Your task to perform on an android device: Go to Android settings Image 0: 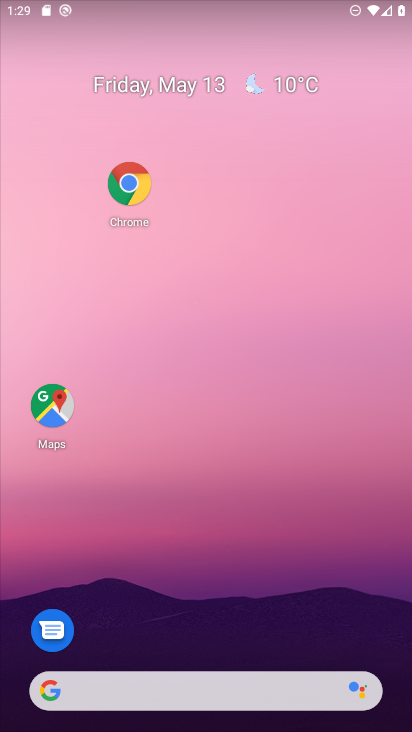
Step 0: drag from (210, 689) to (247, 270)
Your task to perform on an android device: Go to Android settings Image 1: 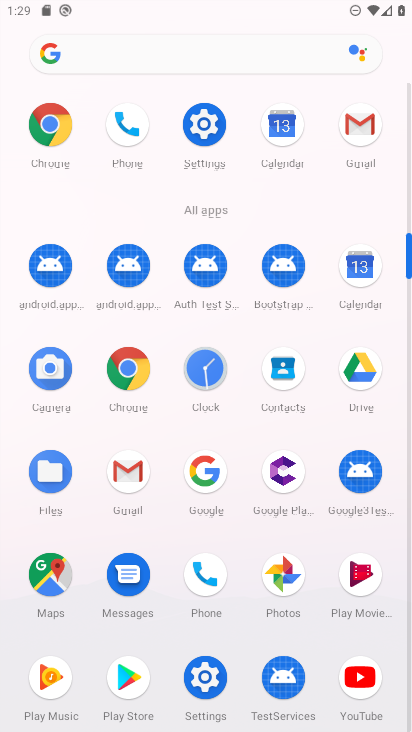
Step 1: click (215, 680)
Your task to perform on an android device: Go to Android settings Image 2: 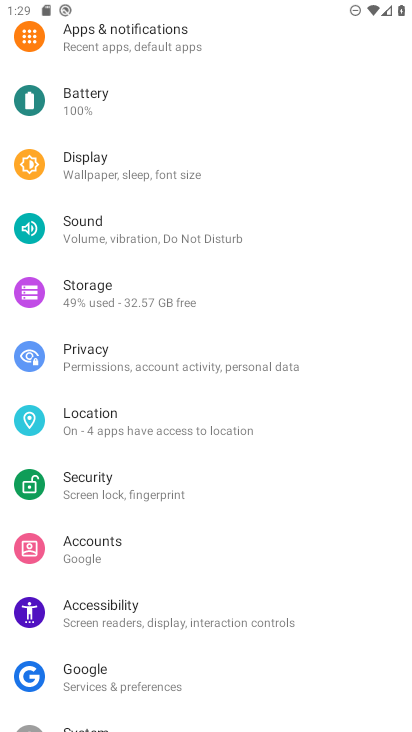
Step 2: drag from (138, 659) to (175, 176)
Your task to perform on an android device: Go to Android settings Image 3: 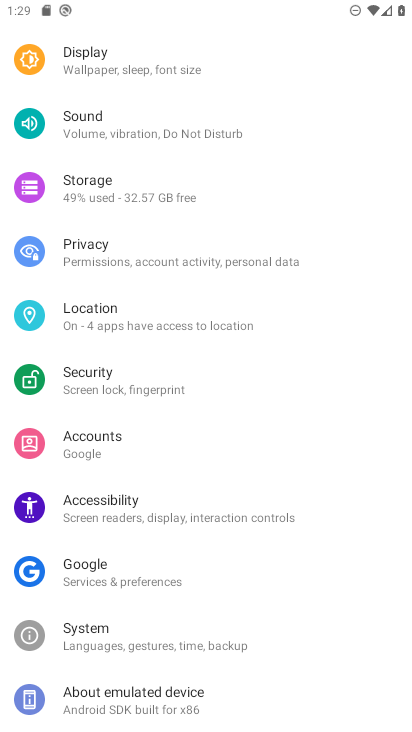
Step 3: click (185, 701)
Your task to perform on an android device: Go to Android settings Image 4: 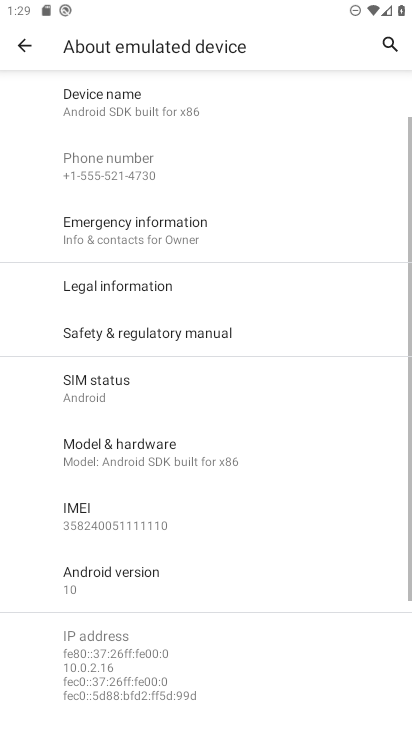
Step 4: task complete